Your task to perform on an android device: Turn on the flashlight Image 0: 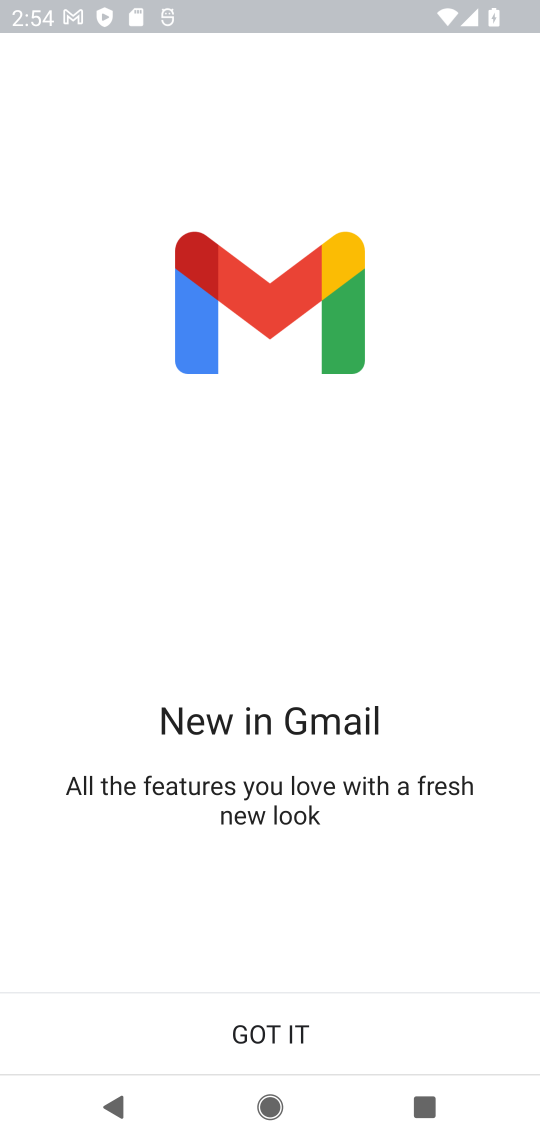
Step 0: press home button
Your task to perform on an android device: Turn on the flashlight Image 1: 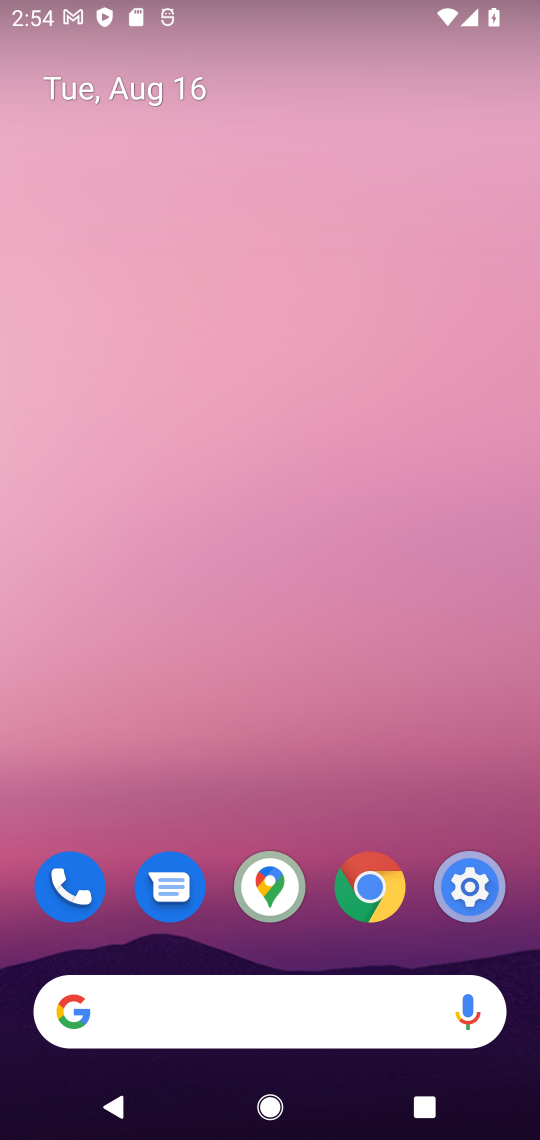
Step 1: drag from (305, 796) to (377, 160)
Your task to perform on an android device: Turn on the flashlight Image 2: 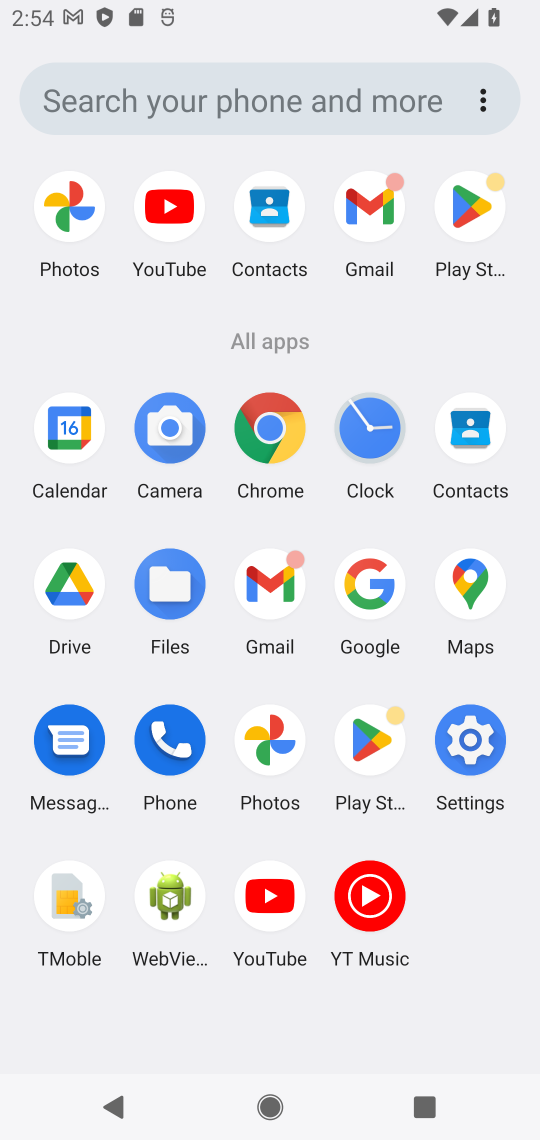
Step 2: click (471, 751)
Your task to perform on an android device: Turn on the flashlight Image 3: 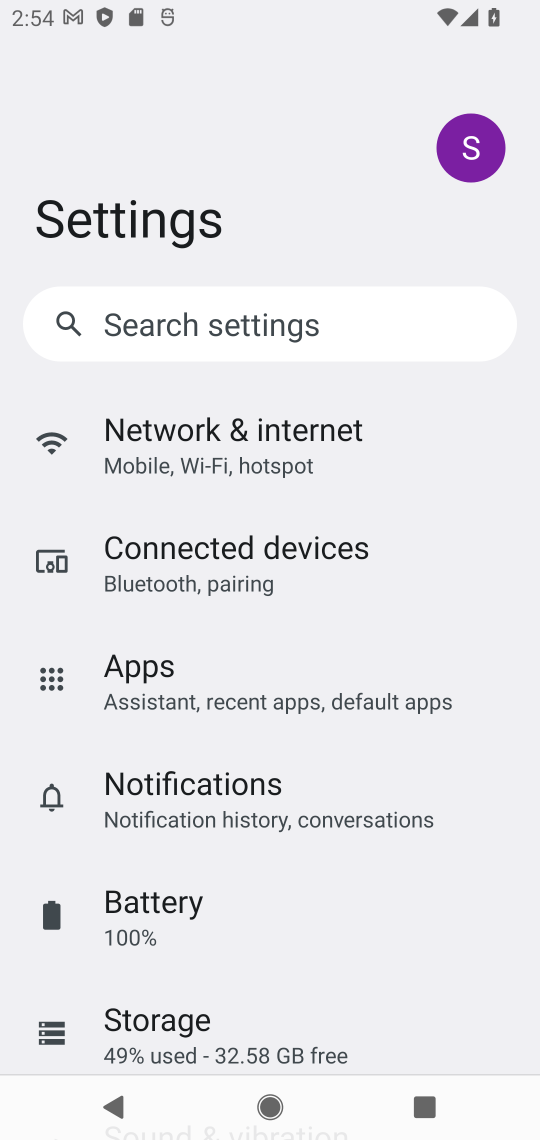
Step 3: drag from (318, 932) to (420, 441)
Your task to perform on an android device: Turn on the flashlight Image 4: 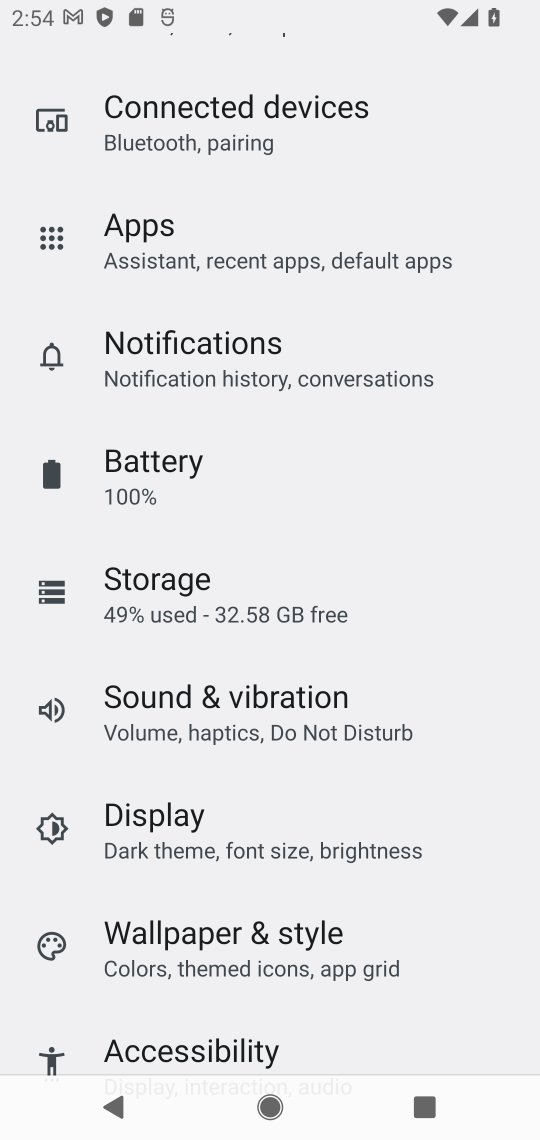
Step 4: click (181, 818)
Your task to perform on an android device: Turn on the flashlight Image 5: 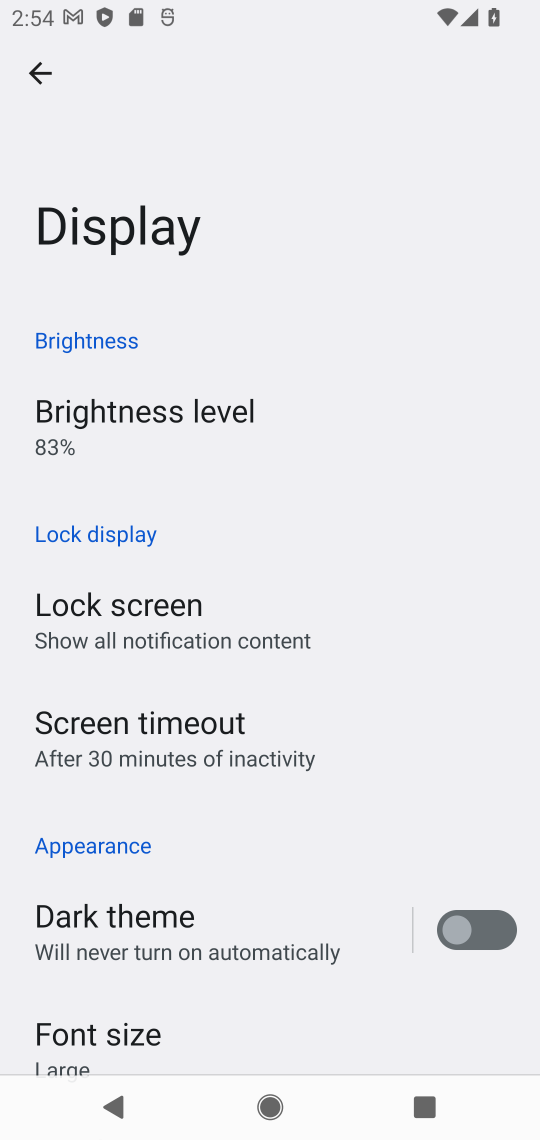
Step 5: click (178, 707)
Your task to perform on an android device: Turn on the flashlight Image 6: 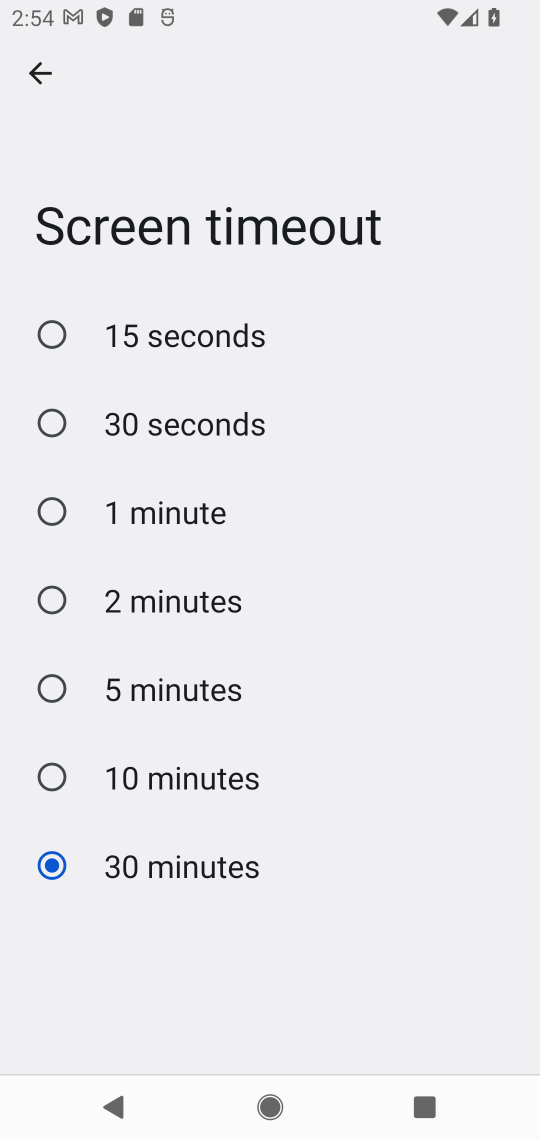
Step 6: task complete